Your task to perform on an android device: turn off improve location accuracy Image 0: 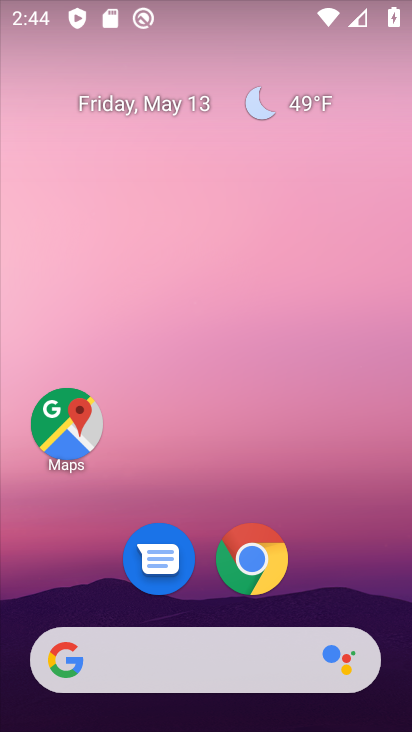
Step 0: drag from (395, 616) to (315, 63)
Your task to perform on an android device: turn off improve location accuracy Image 1: 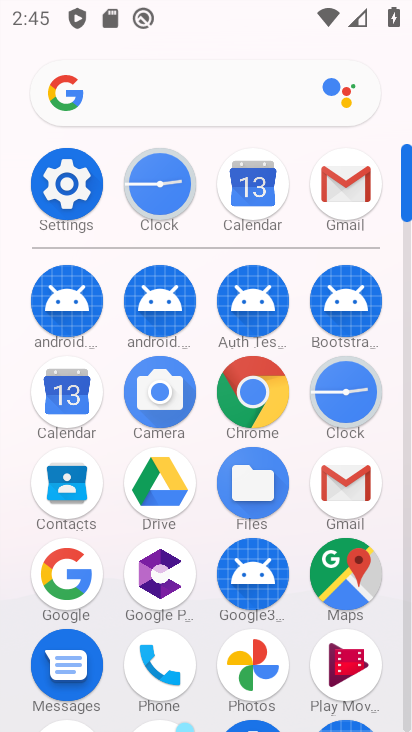
Step 1: click (406, 697)
Your task to perform on an android device: turn off improve location accuracy Image 2: 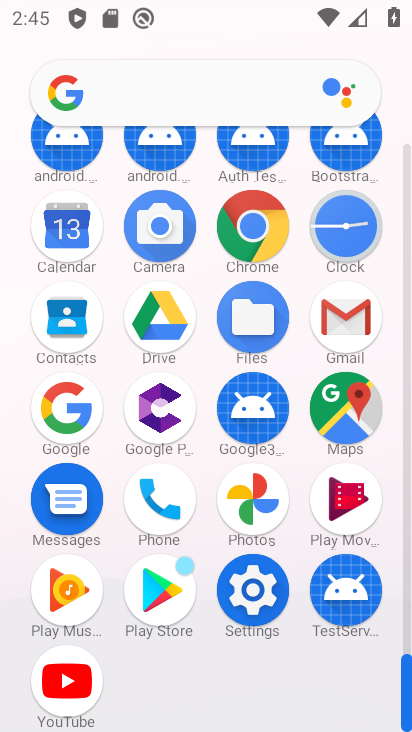
Step 2: click (250, 591)
Your task to perform on an android device: turn off improve location accuracy Image 3: 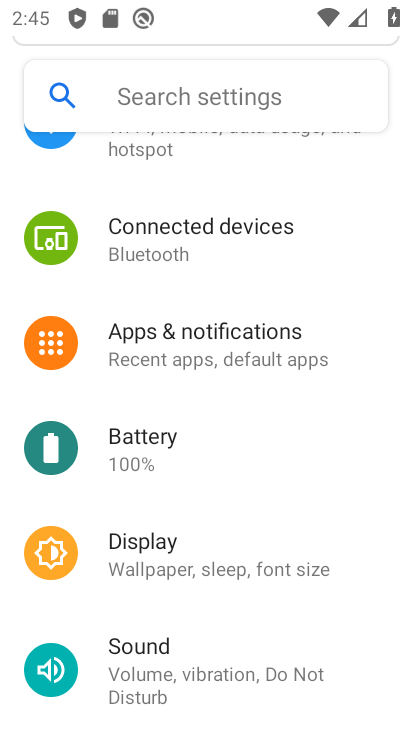
Step 3: drag from (243, 645) to (255, 280)
Your task to perform on an android device: turn off improve location accuracy Image 4: 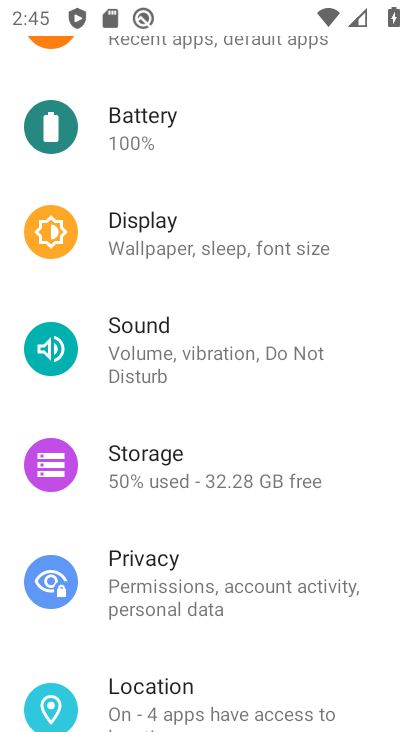
Step 4: drag from (264, 567) to (248, 156)
Your task to perform on an android device: turn off improve location accuracy Image 5: 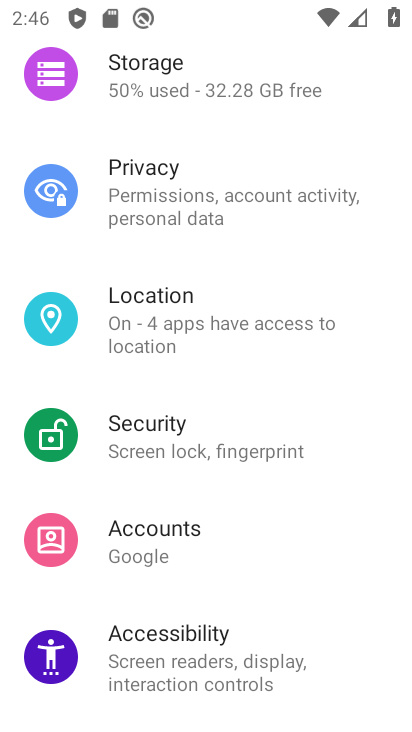
Step 5: click (188, 309)
Your task to perform on an android device: turn off improve location accuracy Image 6: 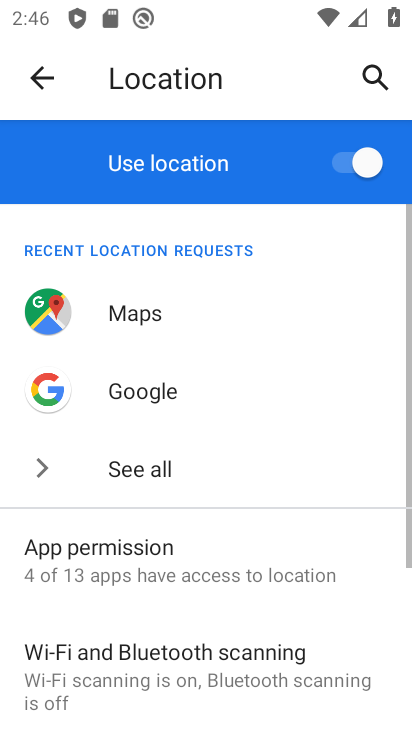
Step 6: drag from (220, 633) to (218, 230)
Your task to perform on an android device: turn off improve location accuracy Image 7: 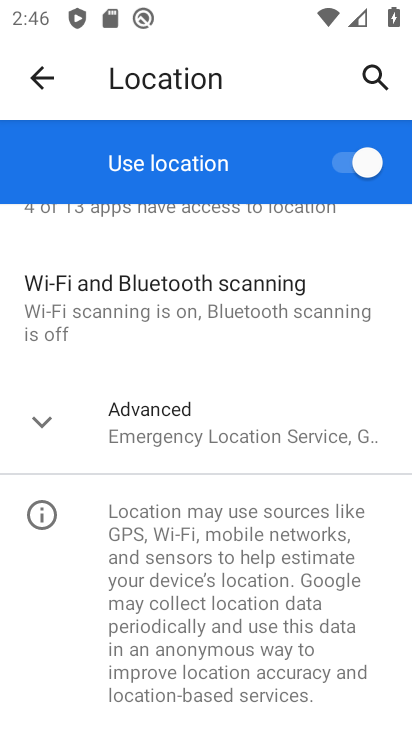
Step 7: click (36, 417)
Your task to perform on an android device: turn off improve location accuracy Image 8: 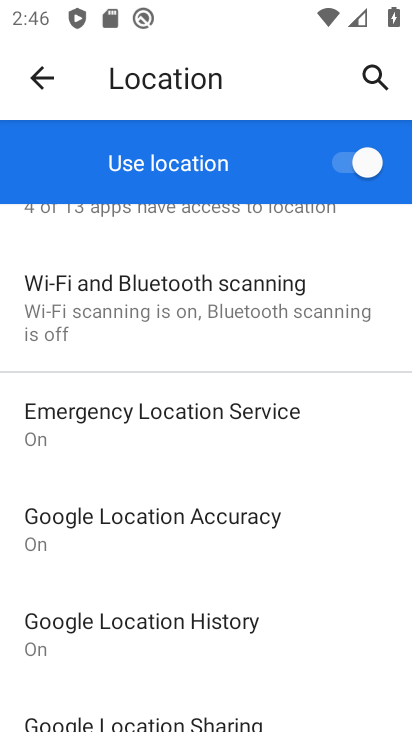
Step 8: click (108, 517)
Your task to perform on an android device: turn off improve location accuracy Image 9: 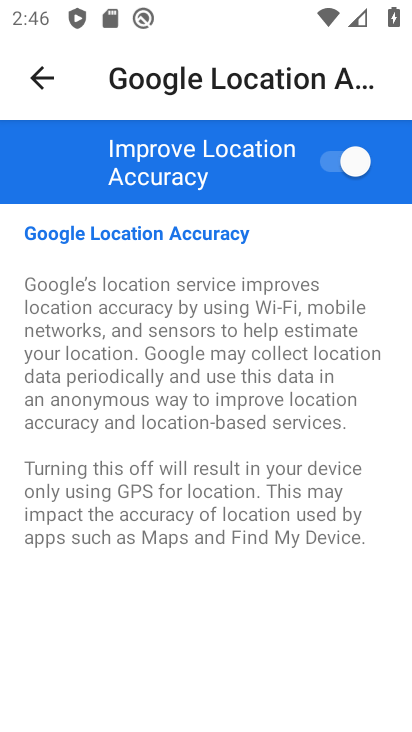
Step 9: click (330, 155)
Your task to perform on an android device: turn off improve location accuracy Image 10: 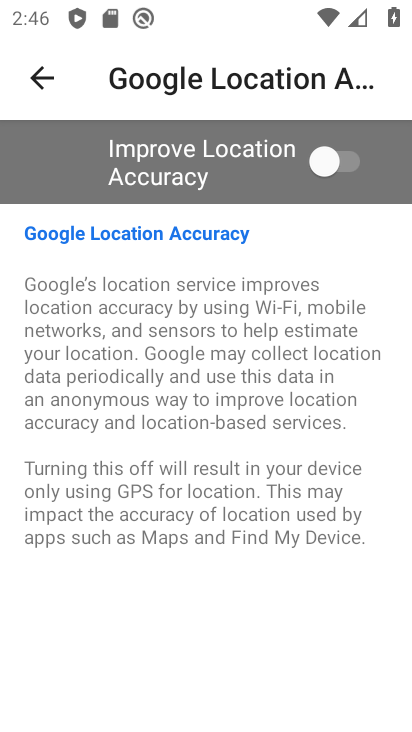
Step 10: task complete